Your task to perform on an android device: Search for Italian restaurants on Maps Image 0: 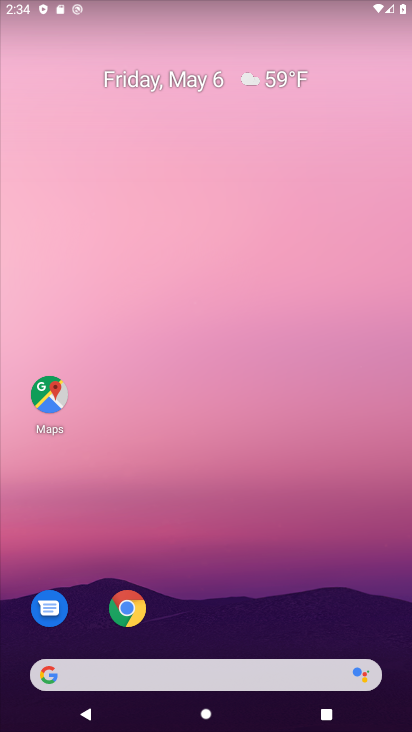
Step 0: click (42, 390)
Your task to perform on an android device: Search for Italian restaurants on Maps Image 1: 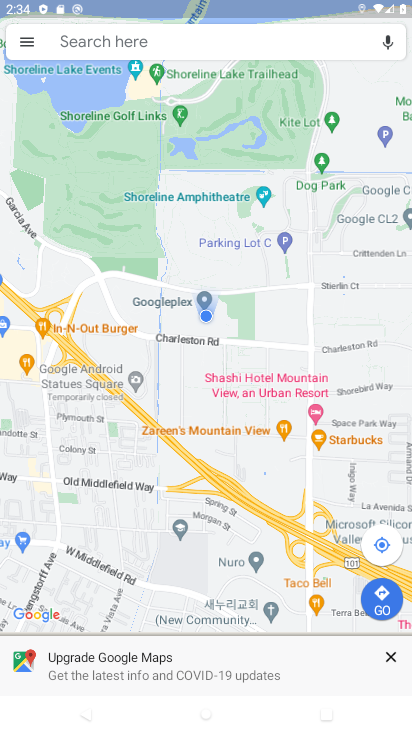
Step 1: click (114, 40)
Your task to perform on an android device: Search for Italian restaurants on Maps Image 2: 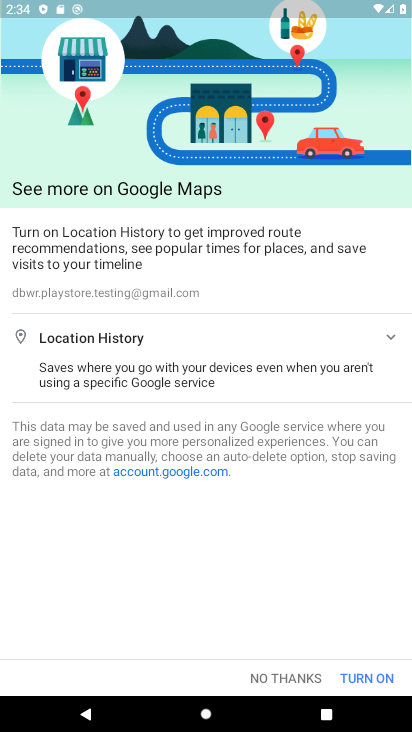
Step 2: type "italian reastaurent"
Your task to perform on an android device: Search for Italian restaurants on Maps Image 3: 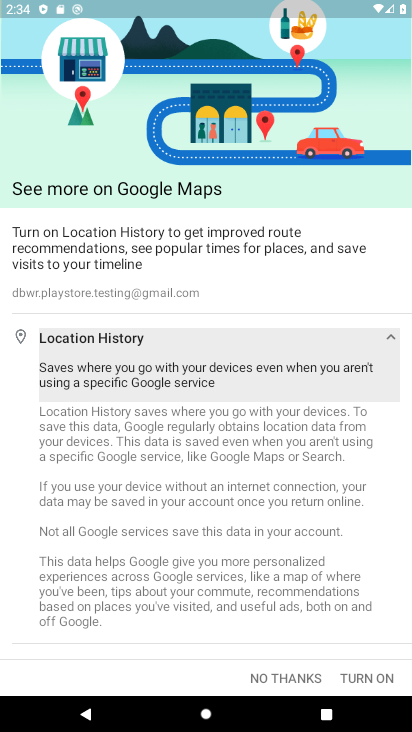
Step 3: click (292, 677)
Your task to perform on an android device: Search for Italian restaurants on Maps Image 4: 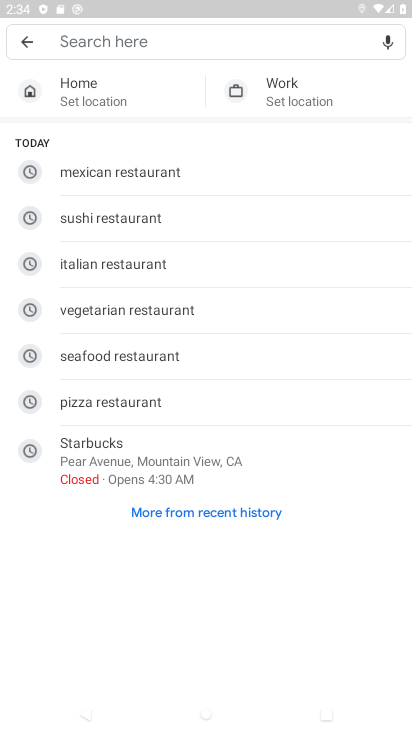
Step 4: click (185, 37)
Your task to perform on an android device: Search for Italian restaurants on Maps Image 5: 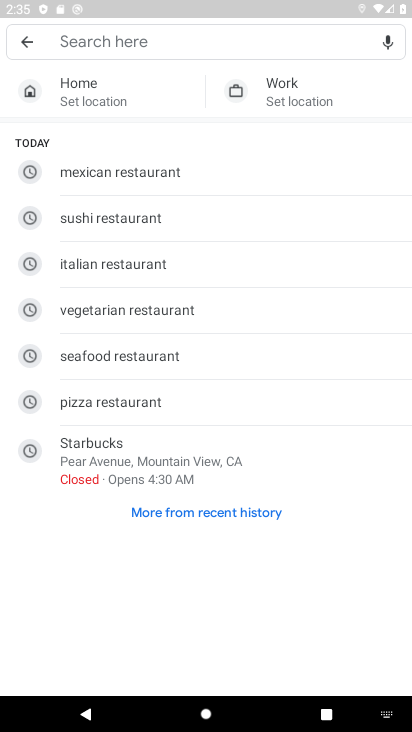
Step 5: type "italian reastuarent"
Your task to perform on an android device: Search for Italian restaurants on Maps Image 6: 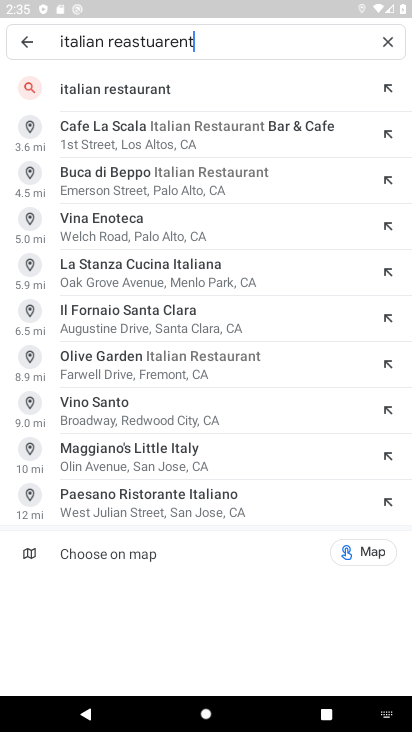
Step 6: click (192, 91)
Your task to perform on an android device: Search for Italian restaurants on Maps Image 7: 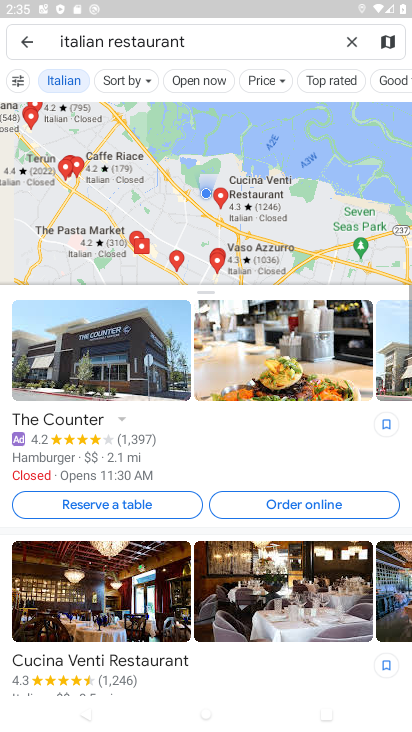
Step 7: task complete